Your task to perform on an android device: Open location settings Image 0: 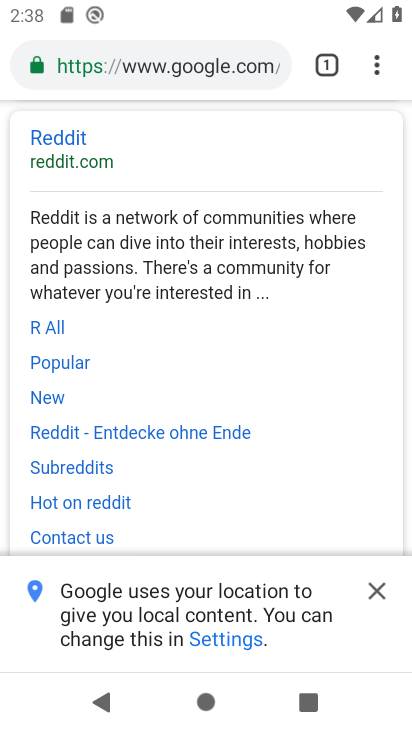
Step 0: press home button
Your task to perform on an android device: Open location settings Image 1: 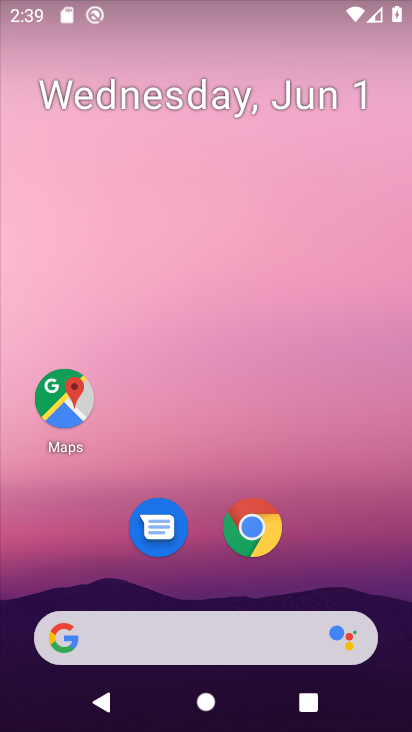
Step 1: drag from (210, 585) to (235, 238)
Your task to perform on an android device: Open location settings Image 2: 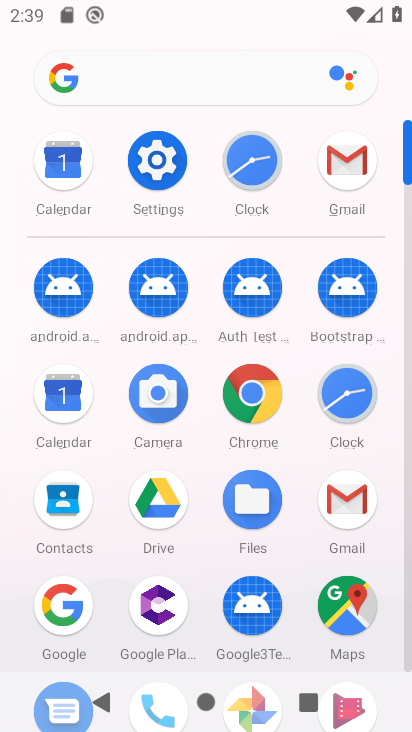
Step 2: click (141, 190)
Your task to perform on an android device: Open location settings Image 3: 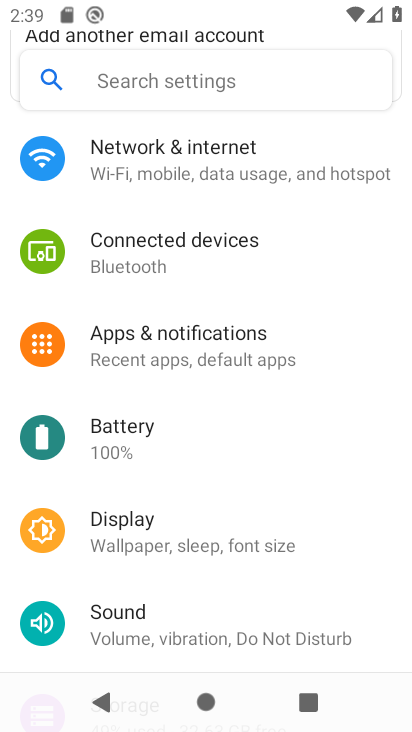
Step 3: drag from (155, 563) to (149, 497)
Your task to perform on an android device: Open location settings Image 4: 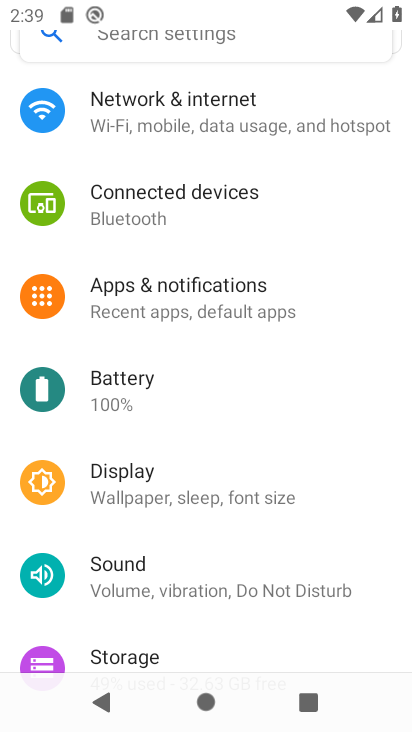
Step 4: drag from (146, 593) to (201, 154)
Your task to perform on an android device: Open location settings Image 5: 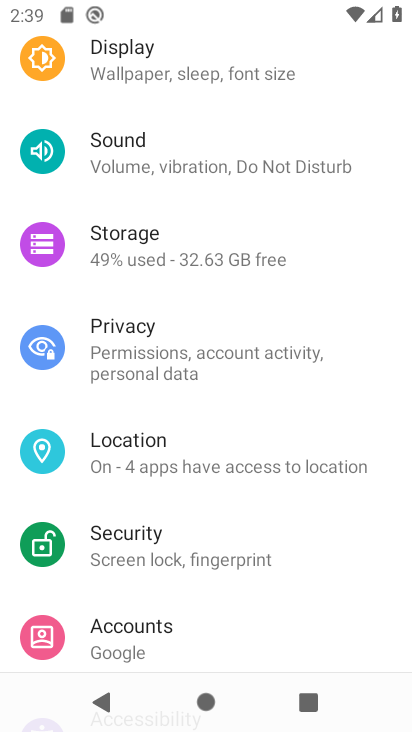
Step 5: click (146, 468)
Your task to perform on an android device: Open location settings Image 6: 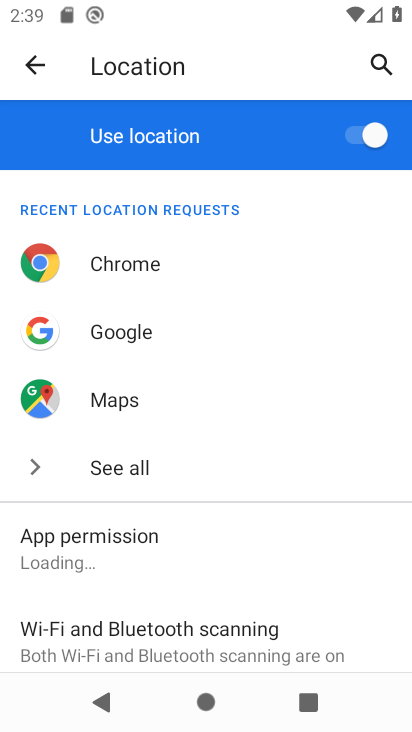
Step 6: task complete